Your task to perform on an android device: check android version Image 0: 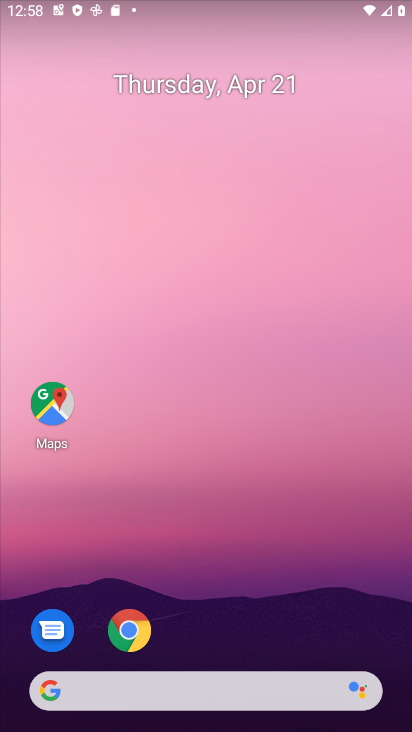
Step 0: drag from (235, 640) to (337, 7)
Your task to perform on an android device: check android version Image 1: 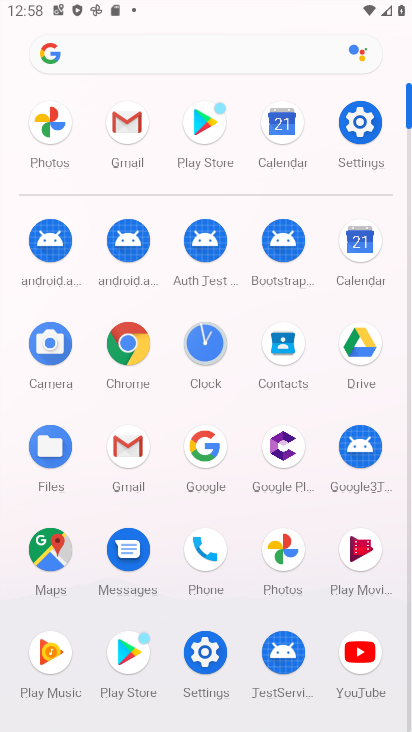
Step 1: click (367, 142)
Your task to perform on an android device: check android version Image 2: 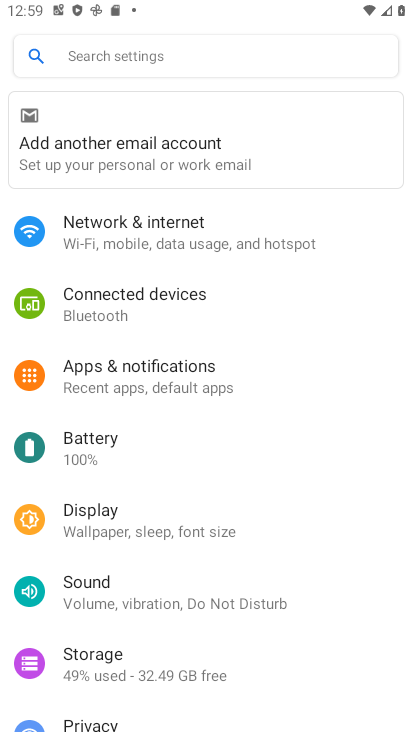
Step 2: drag from (231, 656) to (319, 104)
Your task to perform on an android device: check android version Image 3: 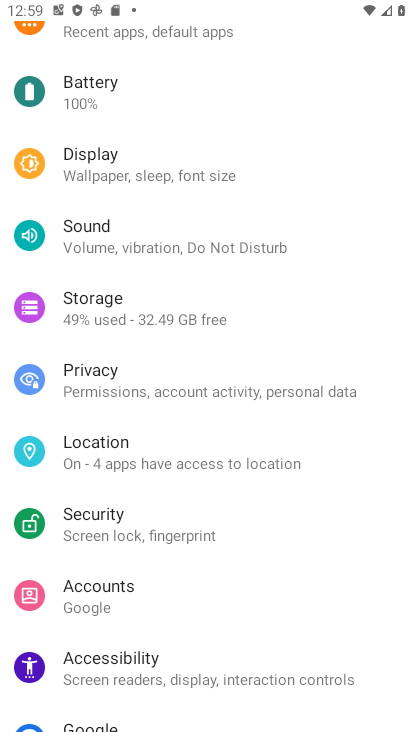
Step 3: drag from (218, 700) to (236, 322)
Your task to perform on an android device: check android version Image 4: 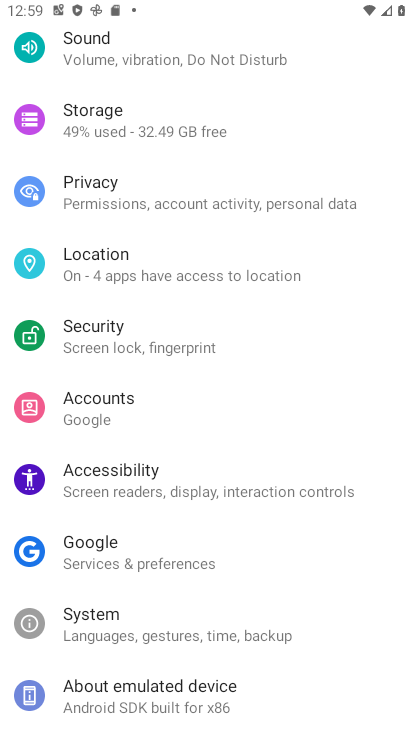
Step 4: click (122, 695)
Your task to perform on an android device: check android version Image 5: 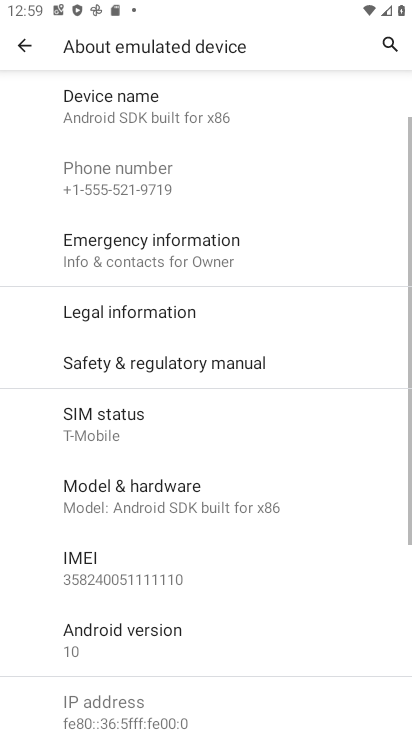
Step 5: click (175, 646)
Your task to perform on an android device: check android version Image 6: 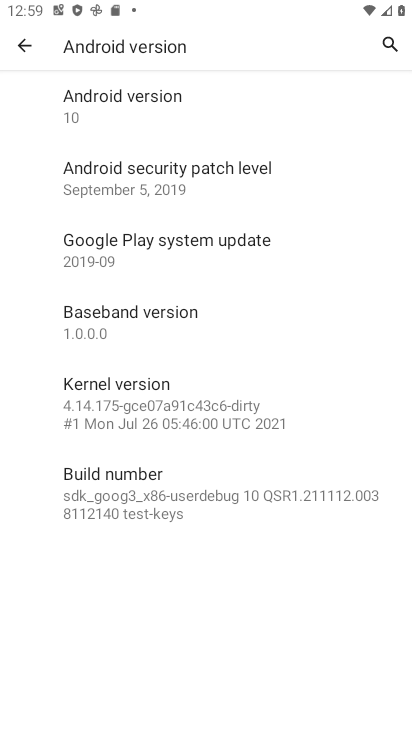
Step 6: task complete